Your task to perform on an android device: Open the phone app and click the voicemail tab. Image 0: 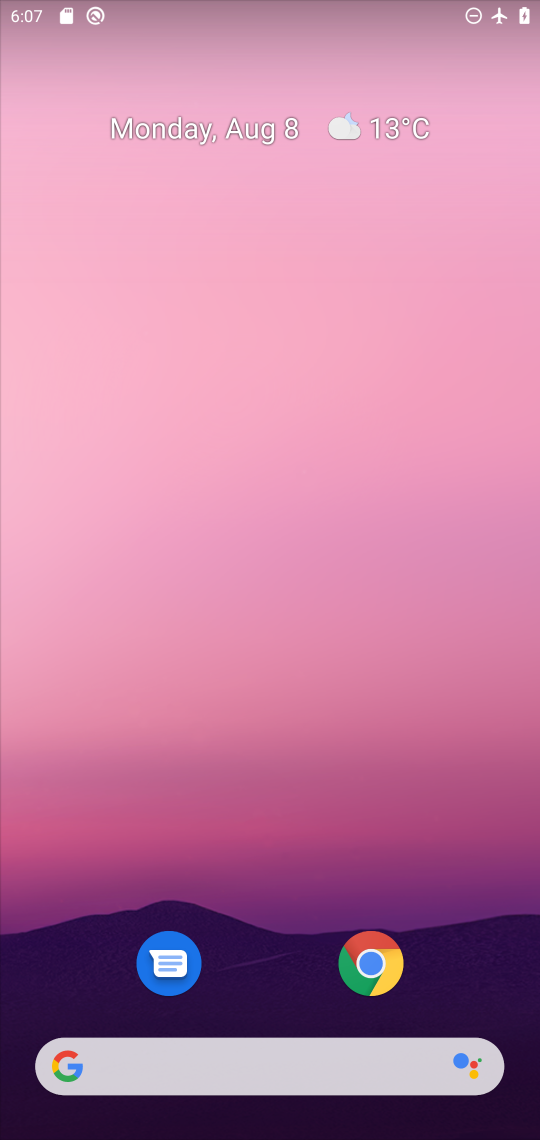
Step 0: drag from (349, 862) to (315, 106)
Your task to perform on an android device: Open the phone app and click the voicemail tab. Image 1: 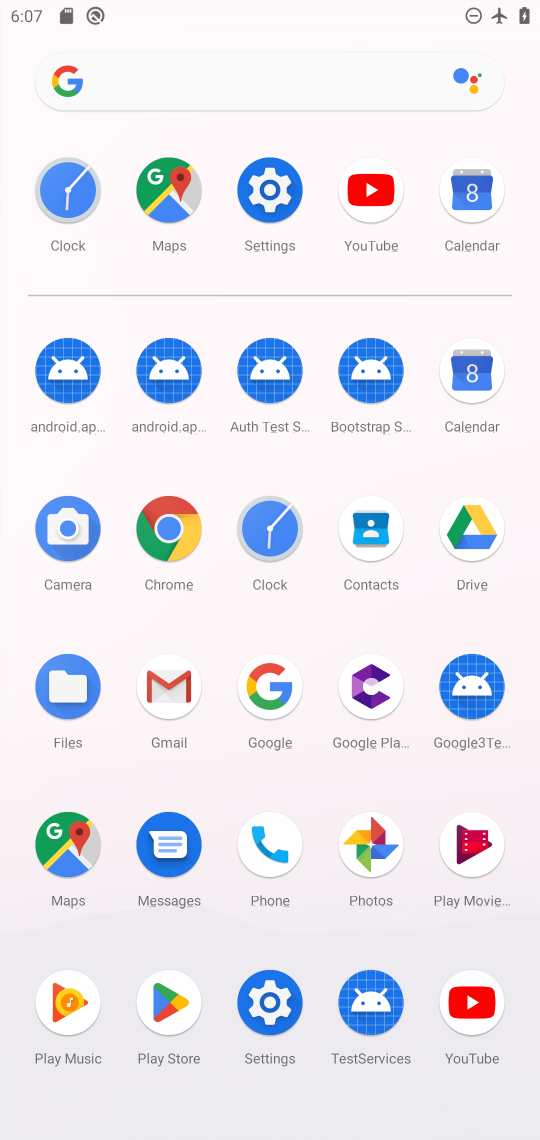
Step 1: click (252, 823)
Your task to perform on an android device: Open the phone app and click the voicemail tab. Image 2: 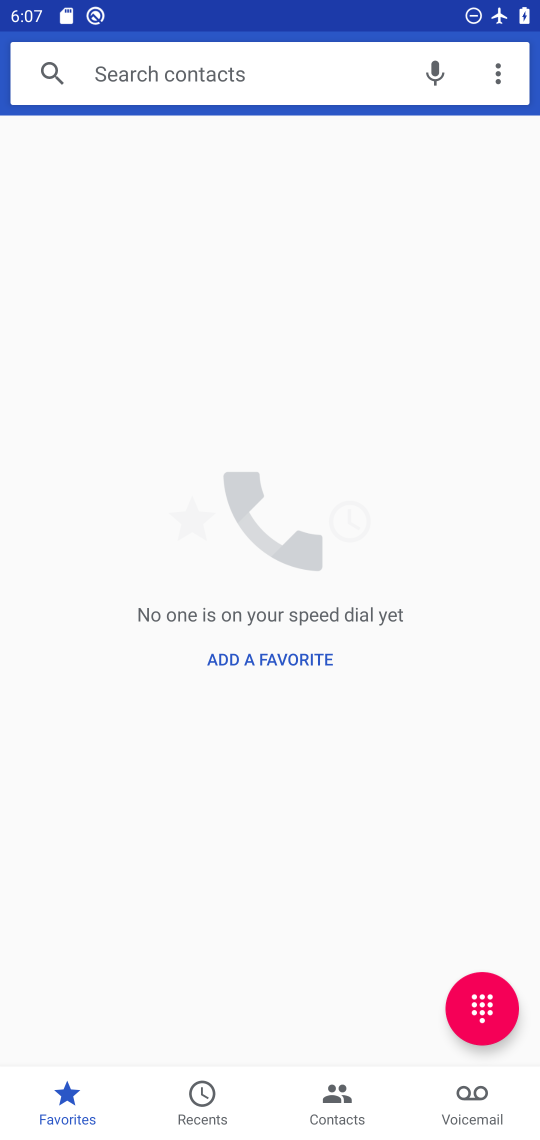
Step 2: click (486, 1082)
Your task to perform on an android device: Open the phone app and click the voicemail tab. Image 3: 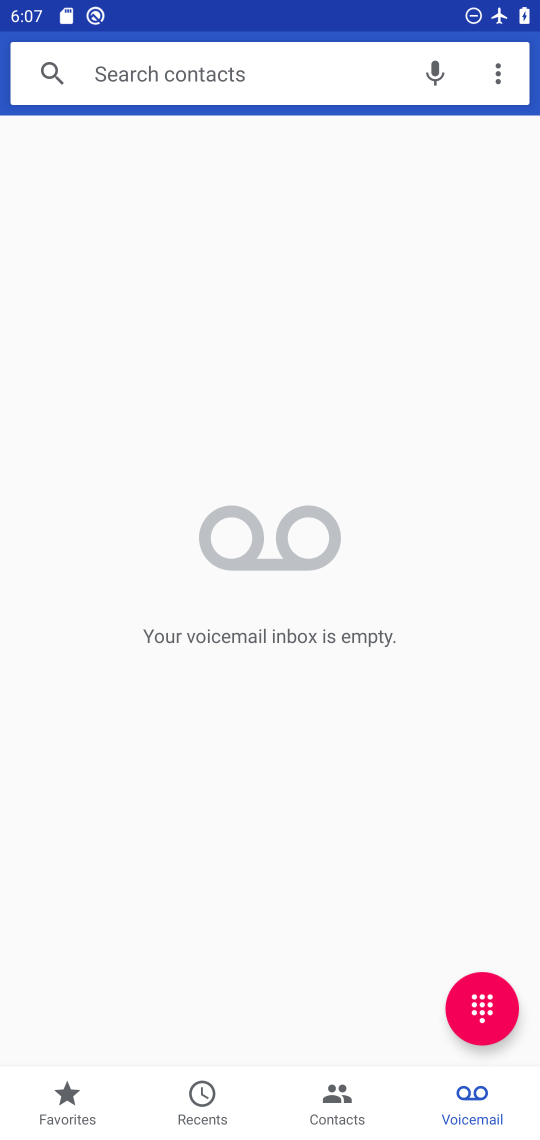
Step 3: task complete